Your task to perform on an android device: turn on wifi Image 0: 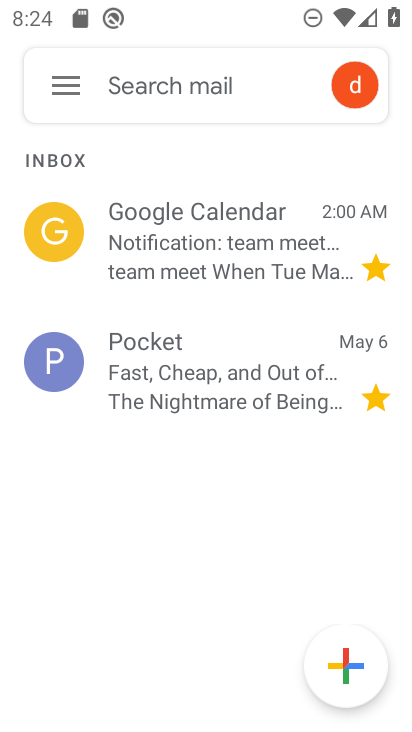
Step 0: press home button
Your task to perform on an android device: turn on wifi Image 1: 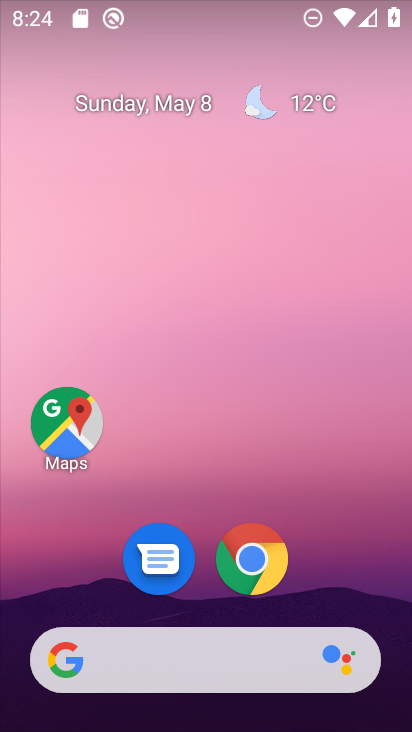
Step 1: drag from (344, 586) to (367, 1)
Your task to perform on an android device: turn on wifi Image 2: 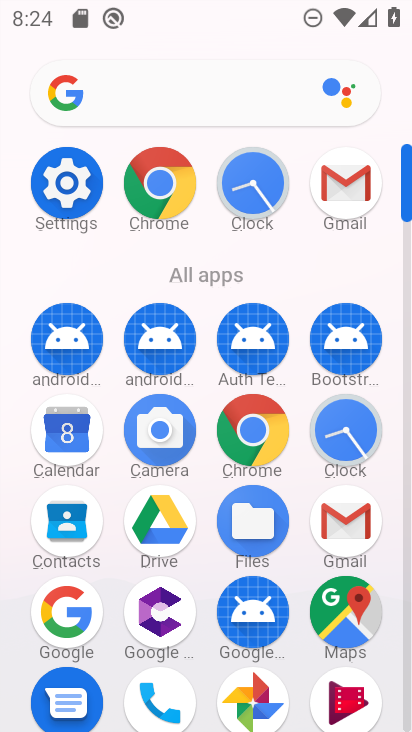
Step 2: click (59, 178)
Your task to perform on an android device: turn on wifi Image 3: 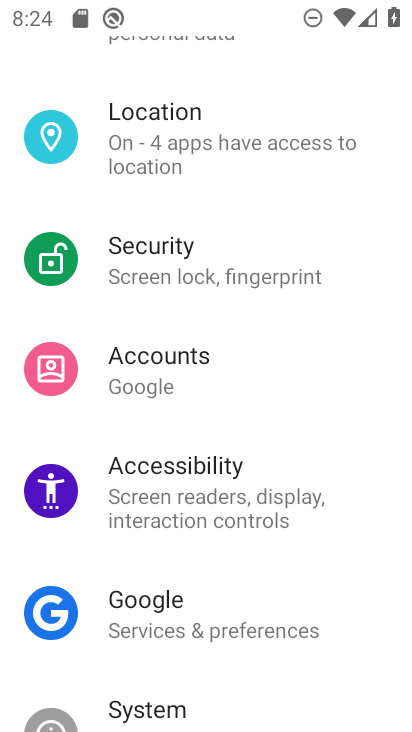
Step 3: drag from (404, 164) to (401, 483)
Your task to perform on an android device: turn on wifi Image 4: 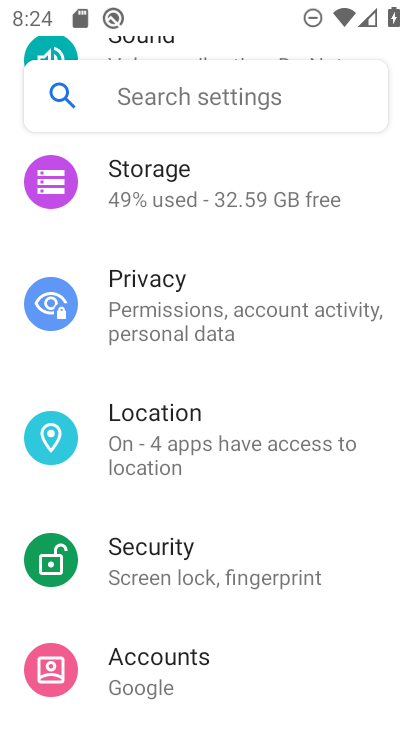
Step 4: drag from (376, 177) to (379, 678)
Your task to perform on an android device: turn on wifi Image 5: 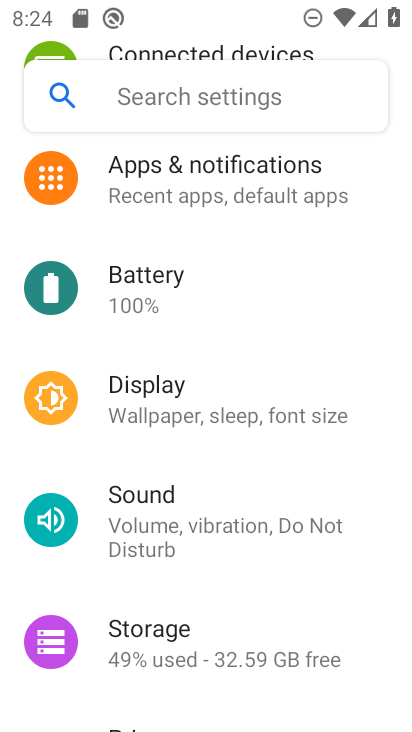
Step 5: drag from (376, 260) to (376, 703)
Your task to perform on an android device: turn on wifi Image 6: 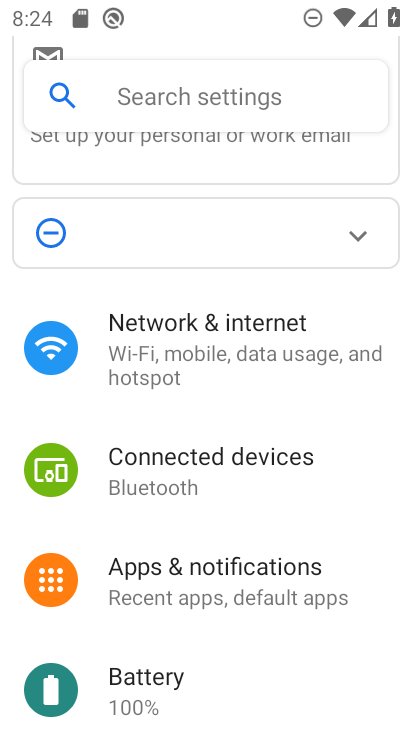
Step 6: click (173, 369)
Your task to perform on an android device: turn on wifi Image 7: 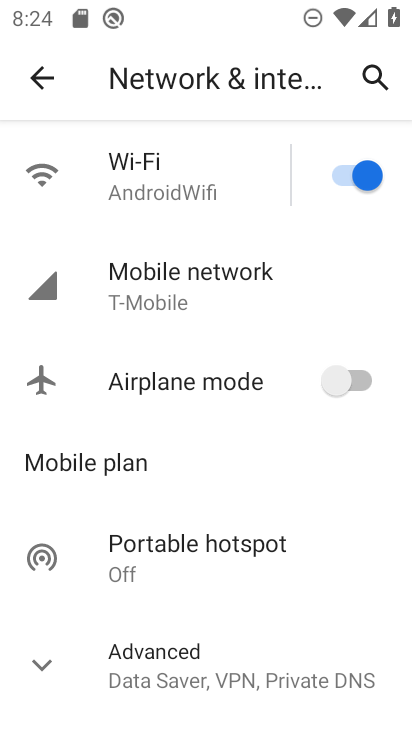
Step 7: task complete